Your task to perform on an android device: turn notification dots on Image 0: 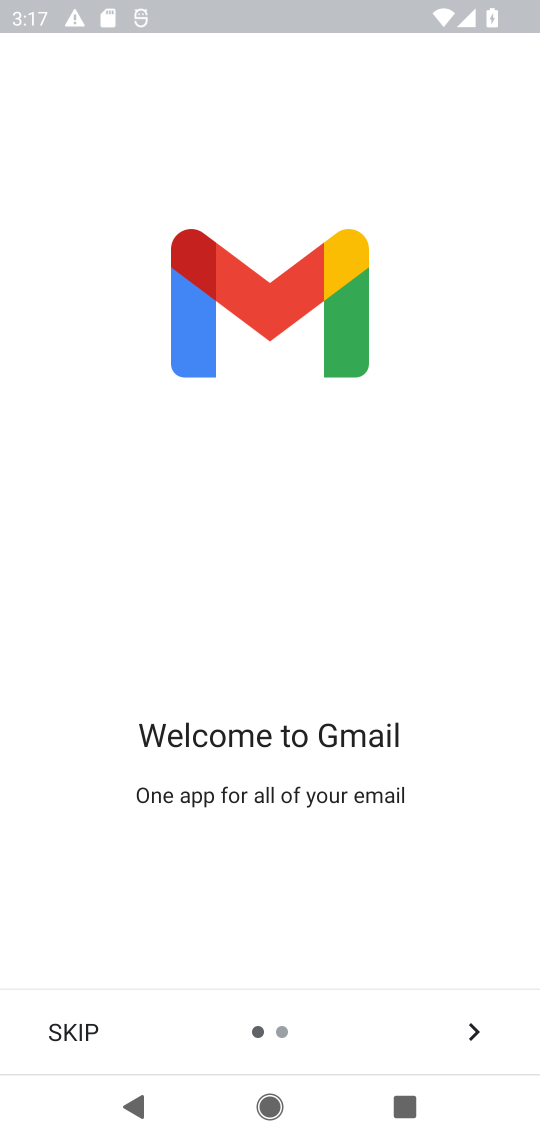
Step 0: click (465, 1030)
Your task to perform on an android device: turn notification dots on Image 1: 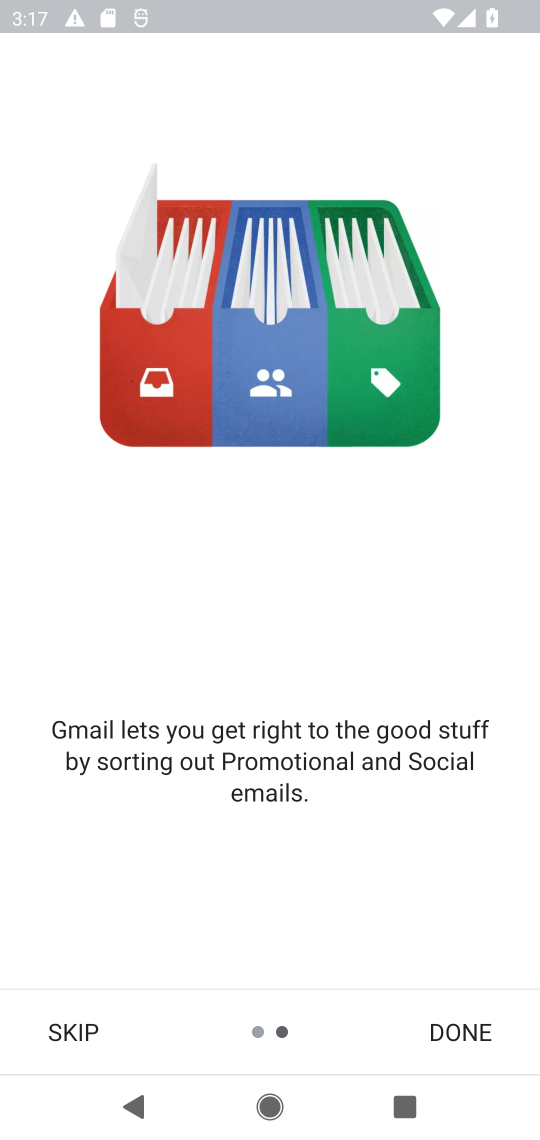
Step 1: click (465, 1030)
Your task to perform on an android device: turn notification dots on Image 2: 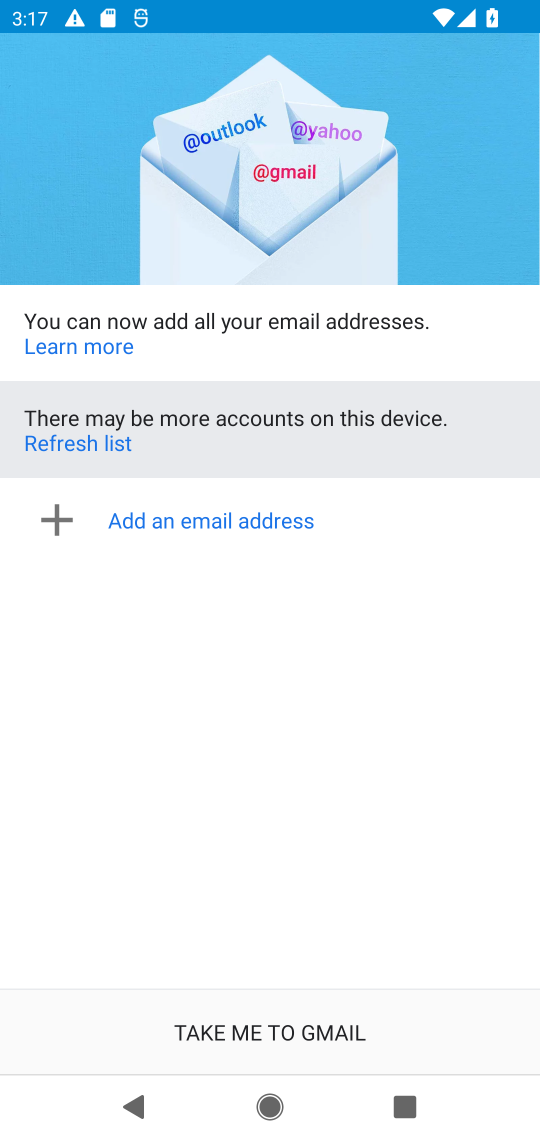
Step 2: press home button
Your task to perform on an android device: turn notification dots on Image 3: 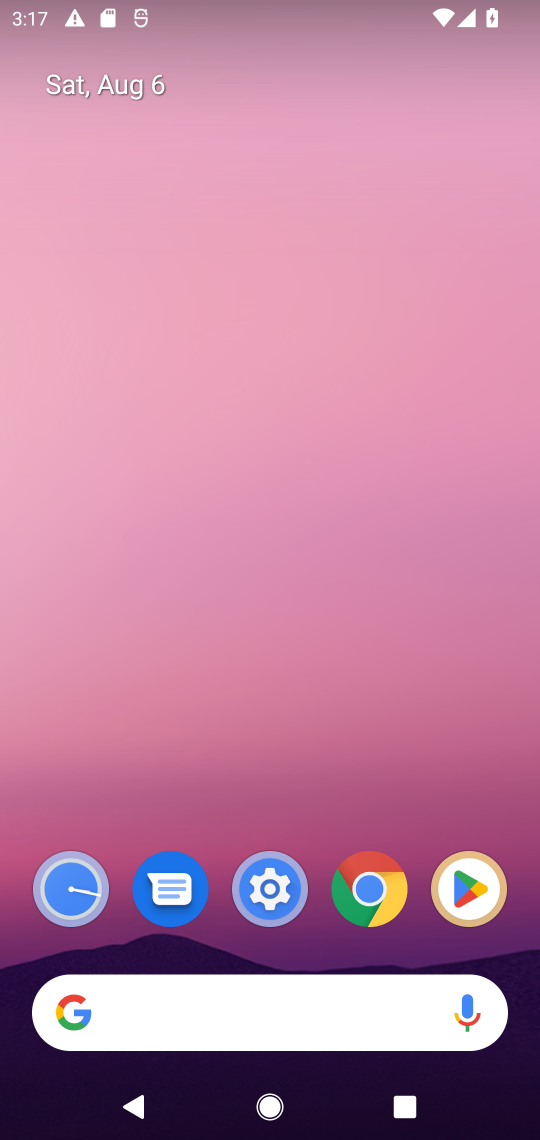
Step 3: drag from (376, 809) to (318, 26)
Your task to perform on an android device: turn notification dots on Image 4: 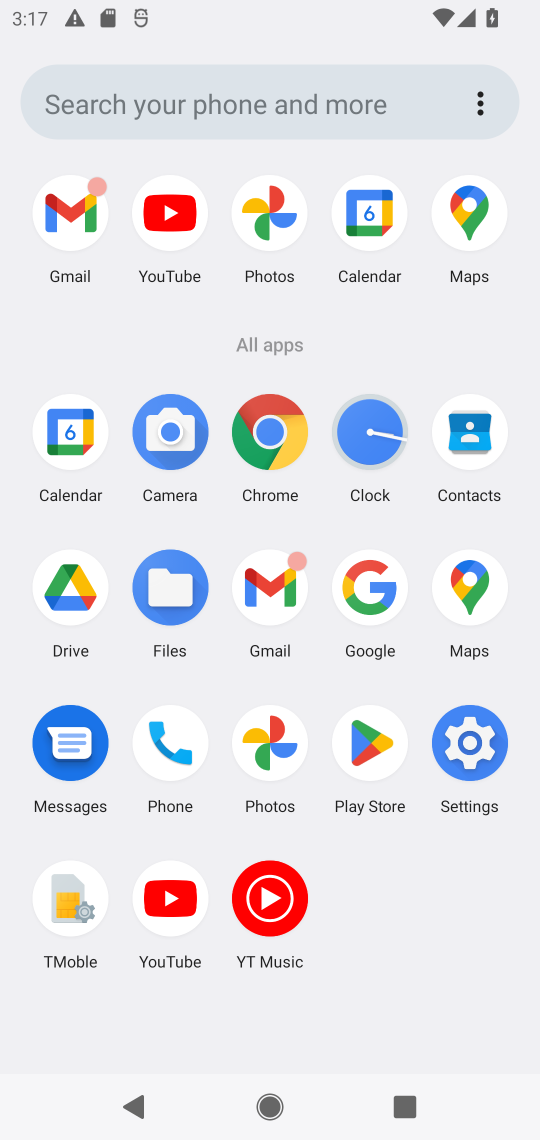
Step 4: click (478, 746)
Your task to perform on an android device: turn notification dots on Image 5: 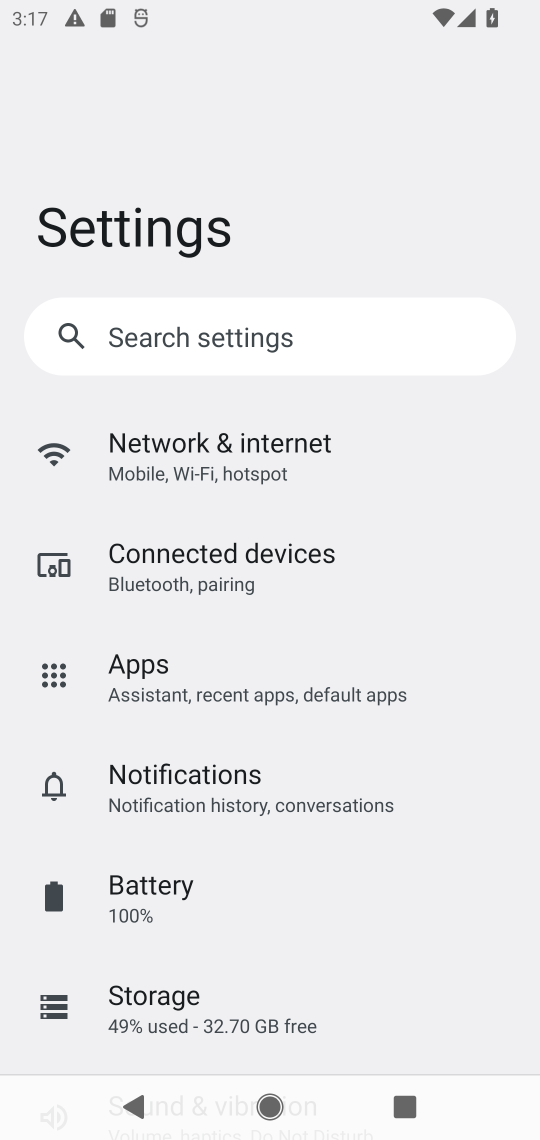
Step 5: drag from (330, 882) to (330, 219)
Your task to perform on an android device: turn notification dots on Image 6: 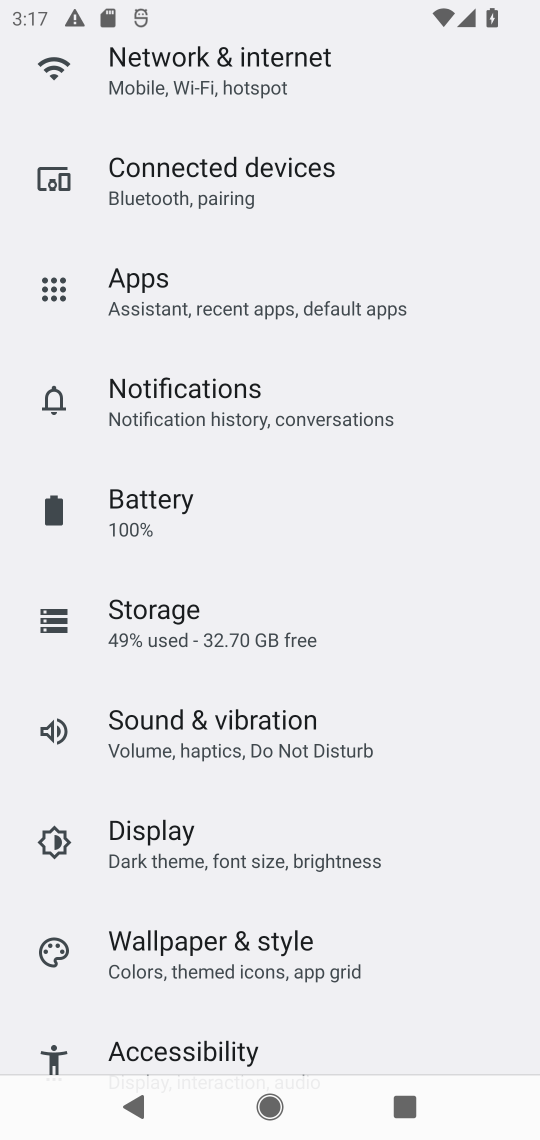
Step 6: drag from (344, 1014) to (363, 261)
Your task to perform on an android device: turn notification dots on Image 7: 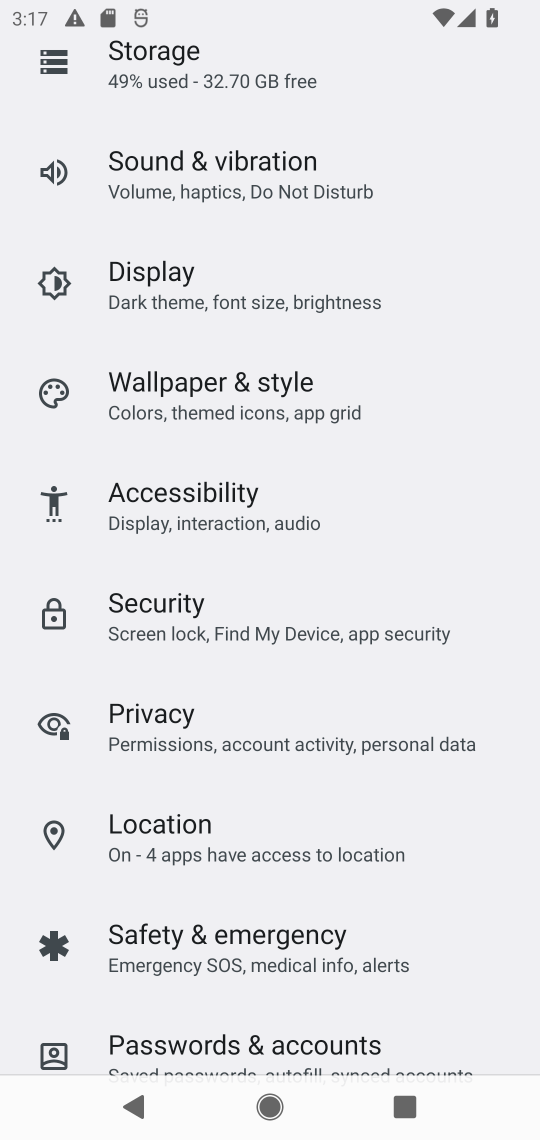
Step 7: drag from (265, 119) to (259, 828)
Your task to perform on an android device: turn notification dots on Image 8: 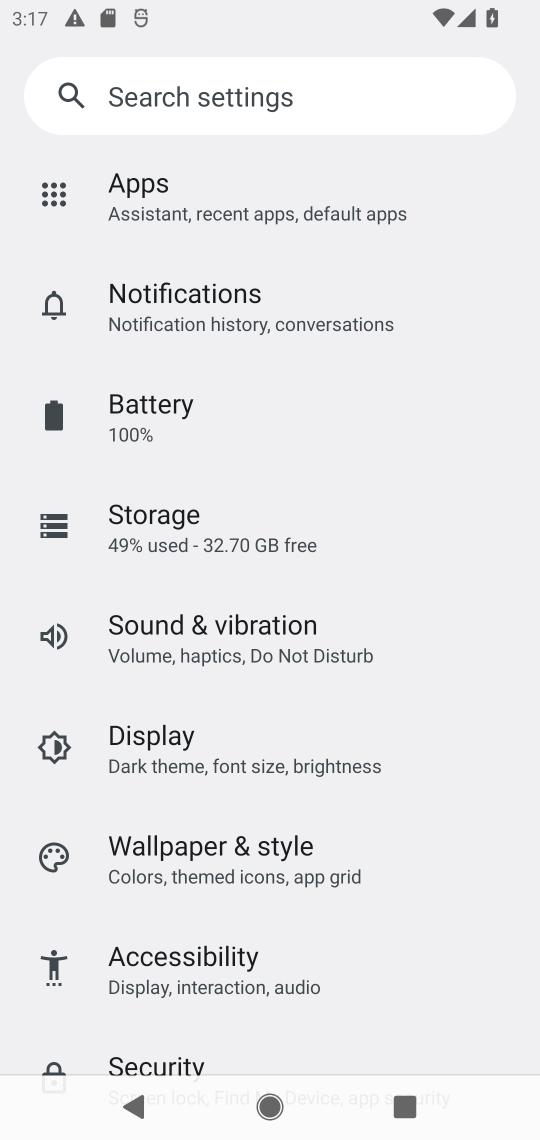
Step 8: click (209, 312)
Your task to perform on an android device: turn notification dots on Image 9: 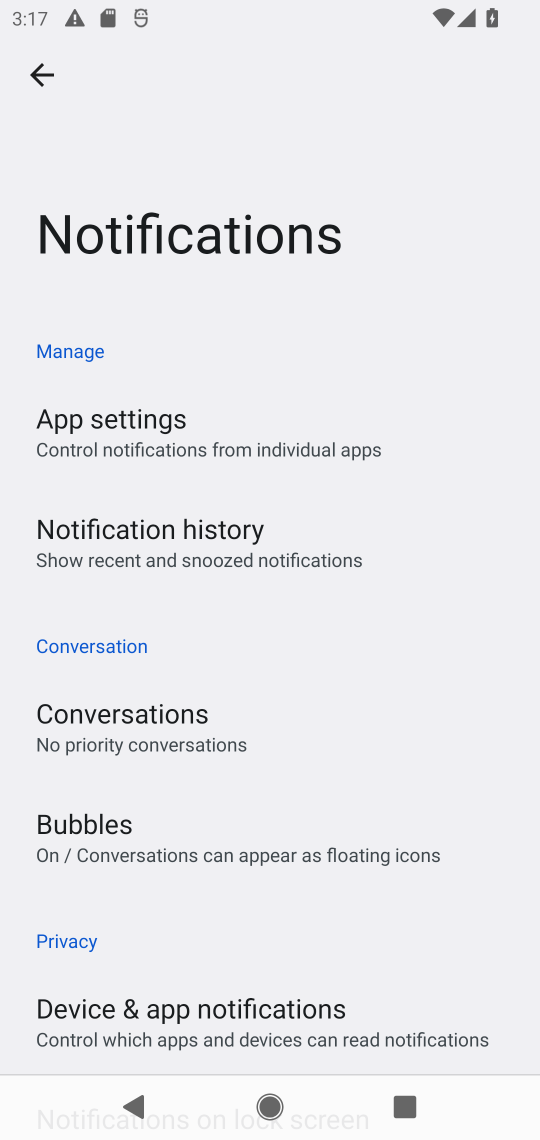
Step 9: task complete